Your task to perform on an android device: Open privacy settings Image 0: 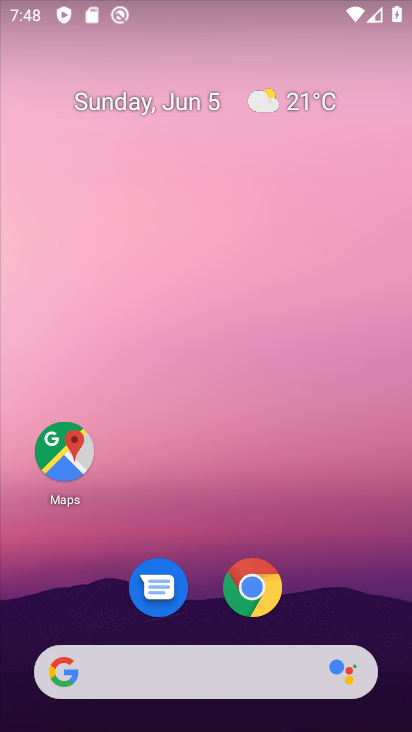
Step 0: drag from (210, 624) to (224, 140)
Your task to perform on an android device: Open privacy settings Image 1: 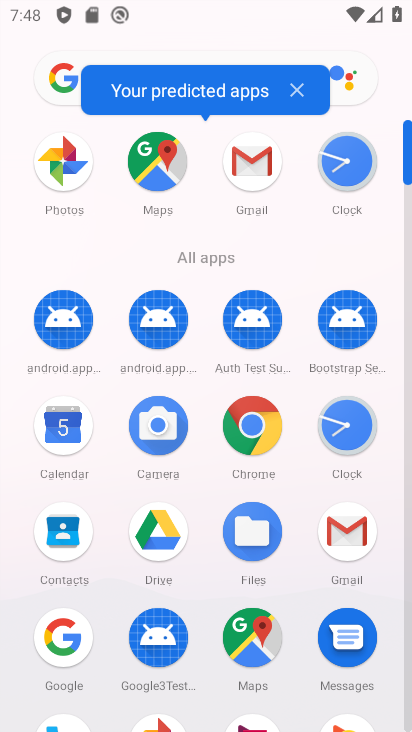
Step 1: drag from (208, 593) to (207, 148)
Your task to perform on an android device: Open privacy settings Image 2: 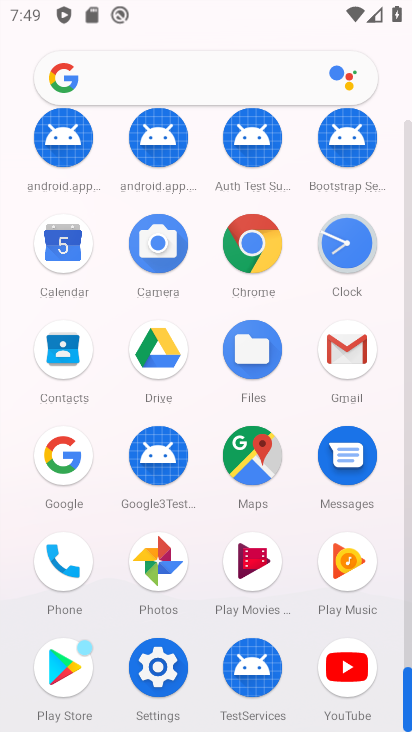
Step 2: click (163, 661)
Your task to perform on an android device: Open privacy settings Image 3: 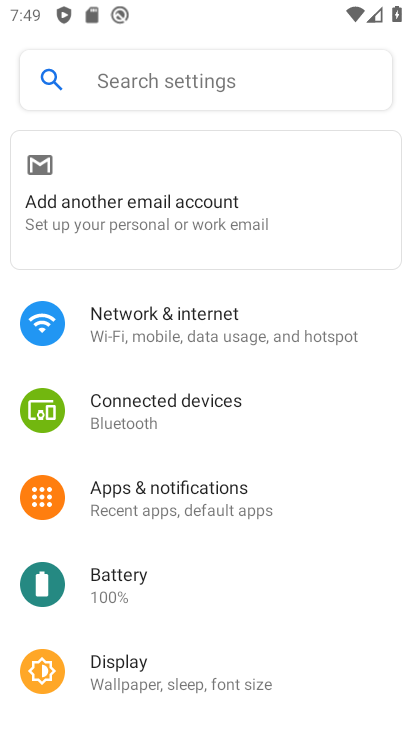
Step 3: drag from (197, 668) to (194, 77)
Your task to perform on an android device: Open privacy settings Image 4: 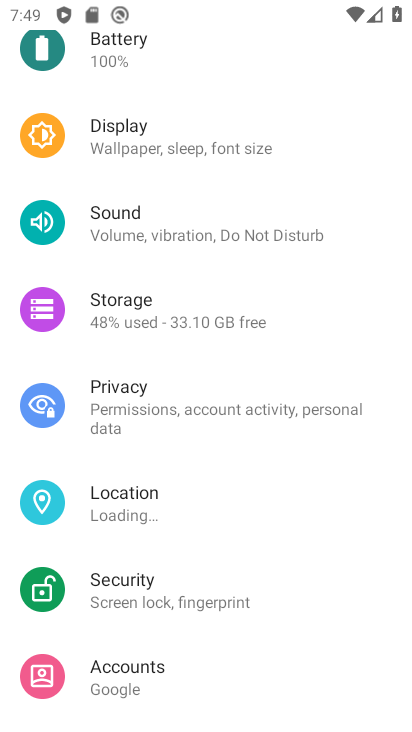
Step 4: drag from (205, 637) to (208, 254)
Your task to perform on an android device: Open privacy settings Image 5: 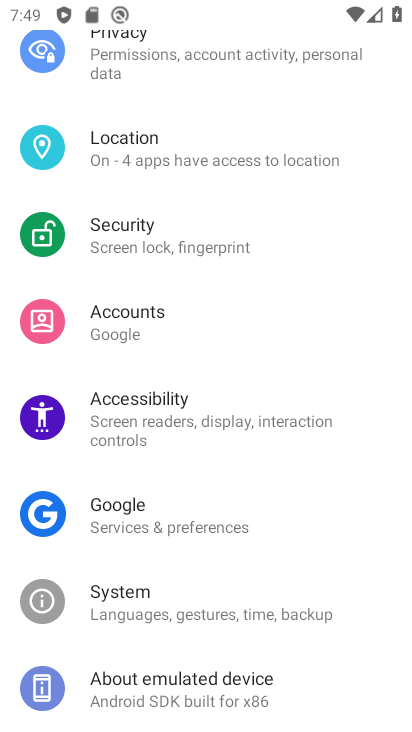
Step 5: click (144, 54)
Your task to perform on an android device: Open privacy settings Image 6: 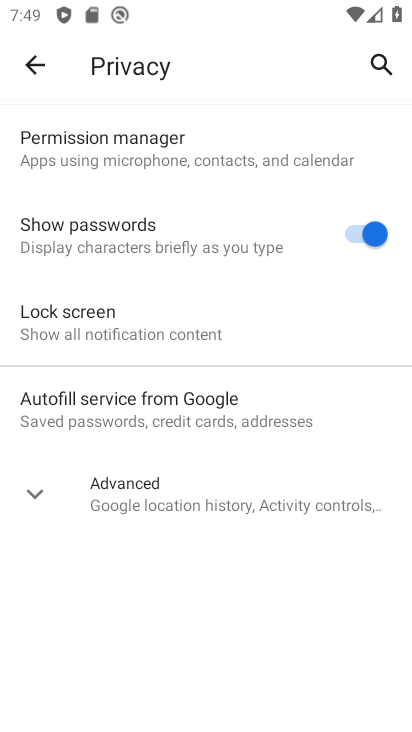
Step 6: click (33, 468)
Your task to perform on an android device: Open privacy settings Image 7: 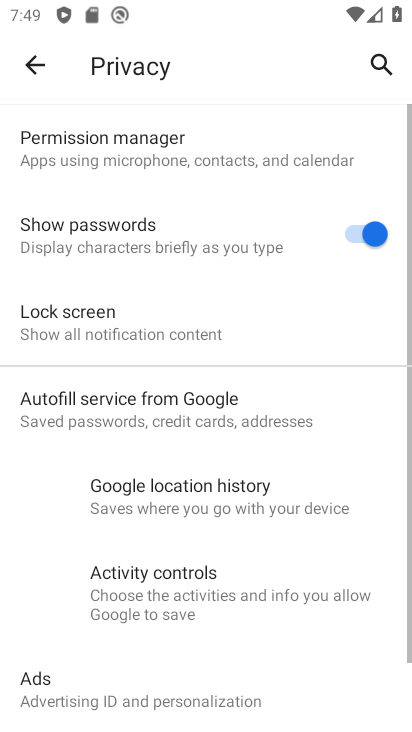
Step 7: task complete